Your task to perform on an android device: Go to calendar. Show me events next week Image 0: 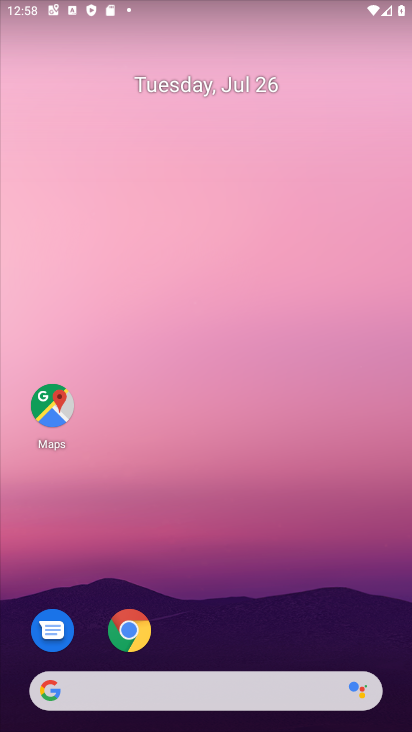
Step 0: drag from (392, 651) to (321, 181)
Your task to perform on an android device: Go to calendar. Show me events next week Image 1: 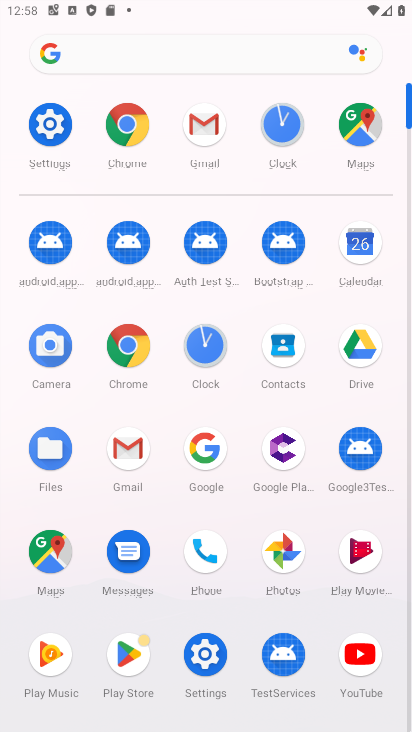
Step 1: click (359, 241)
Your task to perform on an android device: Go to calendar. Show me events next week Image 2: 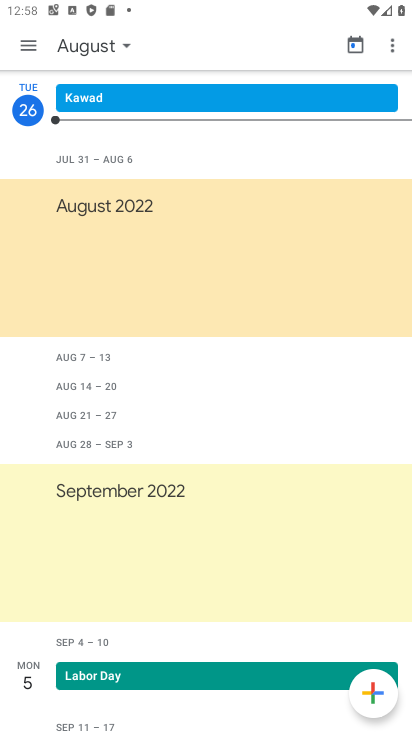
Step 2: click (33, 46)
Your task to perform on an android device: Go to calendar. Show me events next week Image 3: 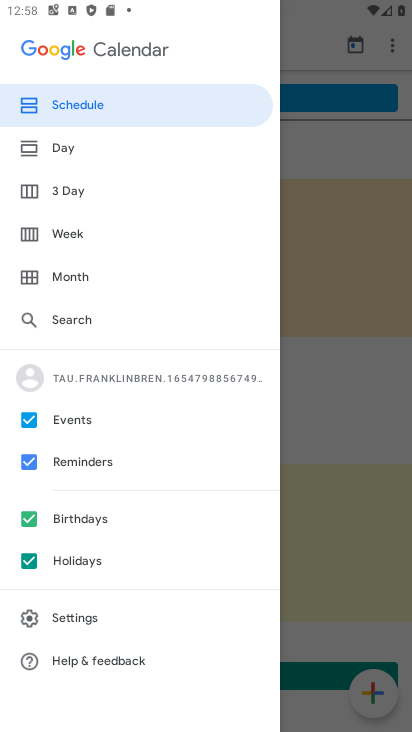
Step 3: click (75, 233)
Your task to perform on an android device: Go to calendar. Show me events next week Image 4: 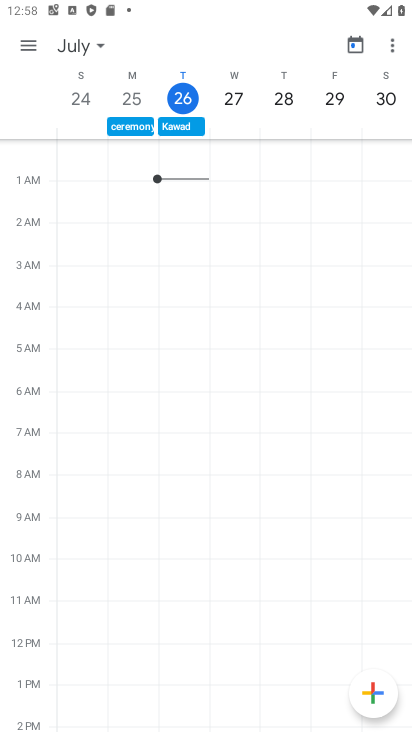
Step 4: click (100, 46)
Your task to perform on an android device: Go to calendar. Show me events next week Image 5: 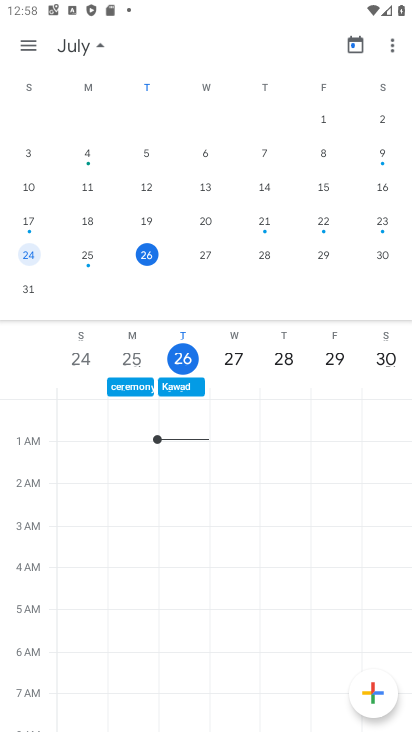
Step 5: click (27, 287)
Your task to perform on an android device: Go to calendar. Show me events next week Image 6: 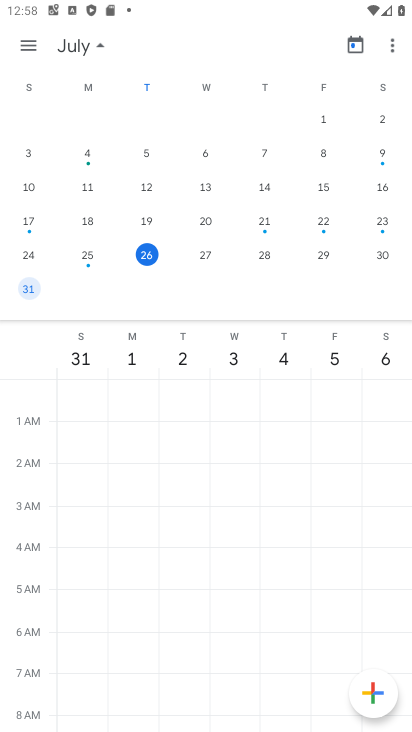
Step 6: task complete